Your task to perform on an android device: refresh tabs in the chrome app Image 0: 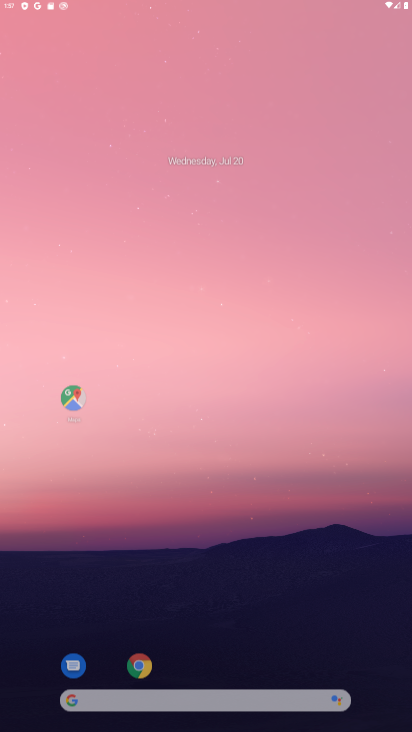
Step 0: drag from (256, 300) to (329, 185)
Your task to perform on an android device: refresh tabs in the chrome app Image 1: 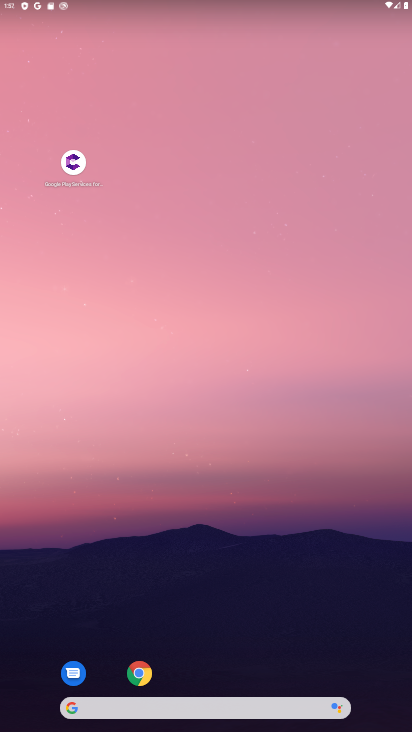
Step 1: drag from (185, 686) to (238, 137)
Your task to perform on an android device: refresh tabs in the chrome app Image 2: 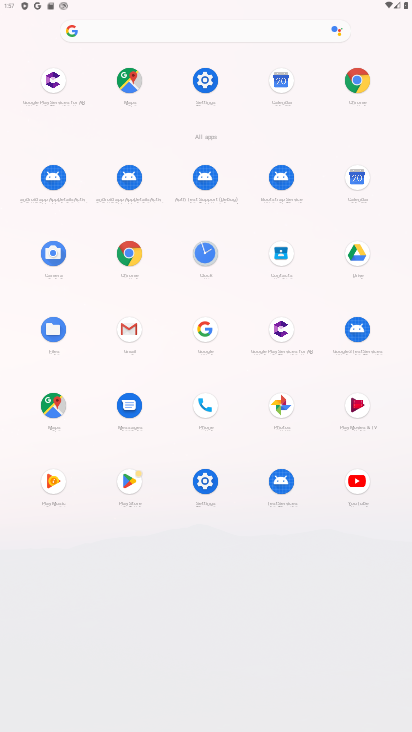
Step 2: click (135, 250)
Your task to perform on an android device: refresh tabs in the chrome app Image 3: 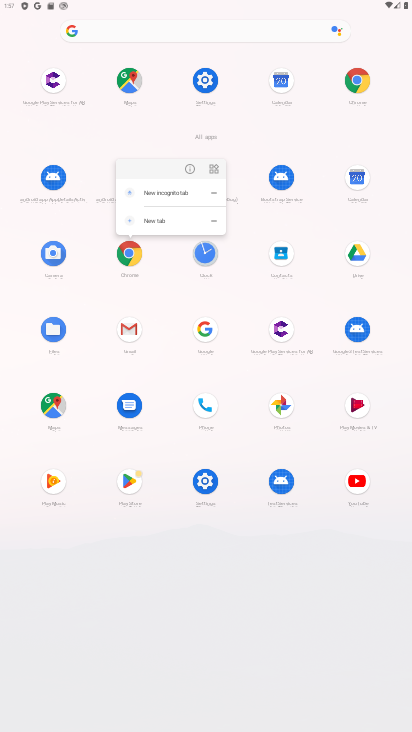
Step 3: click (187, 167)
Your task to perform on an android device: refresh tabs in the chrome app Image 4: 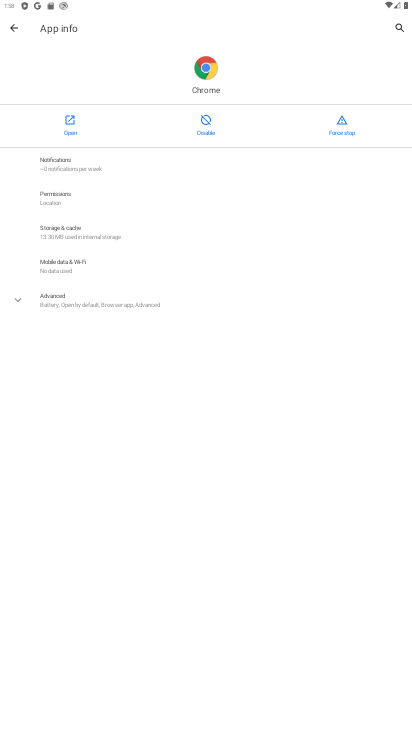
Step 4: click (71, 121)
Your task to perform on an android device: refresh tabs in the chrome app Image 5: 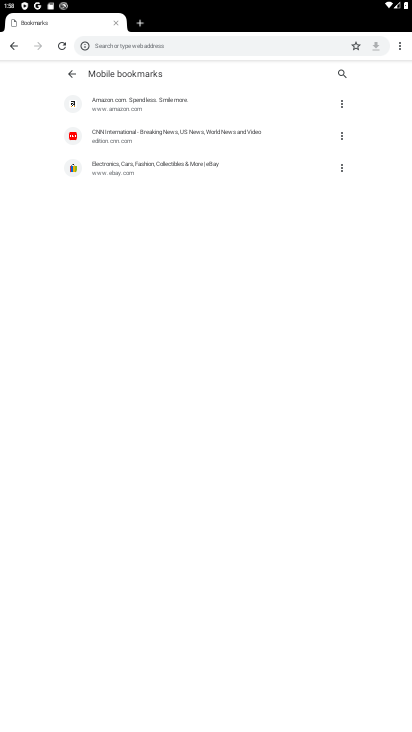
Step 5: click (57, 48)
Your task to perform on an android device: refresh tabs in the chrome app Image 6: 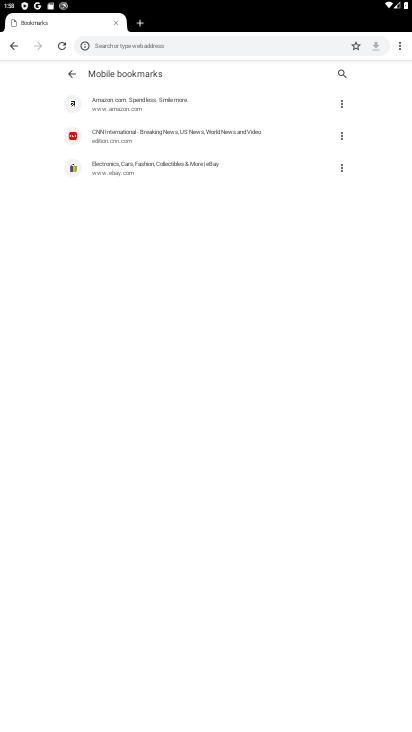
Step 6: task complete